Your task to perform on an android device: Open privacy settings Image 0: 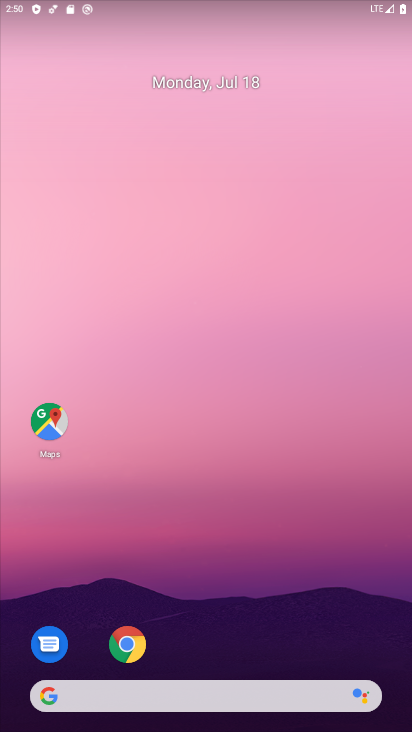
Step 0: drag from (187, 691) to (227, 235)
Your task to perform on an android device: Open privacy settings Image 1: 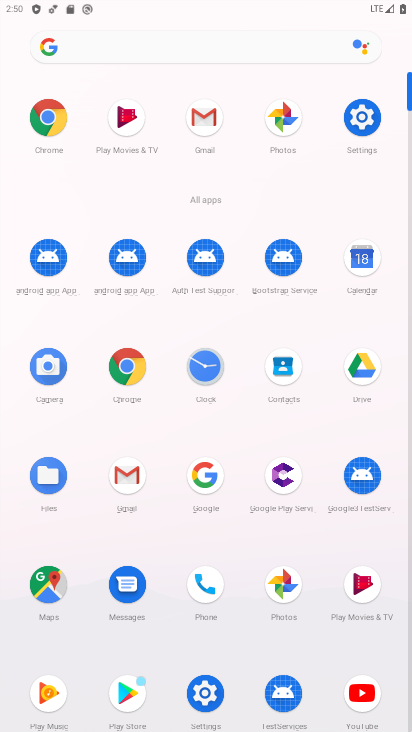
Step 1: click (373, 96)
Your task to perform on an android device: Open privacy settings Image 2: 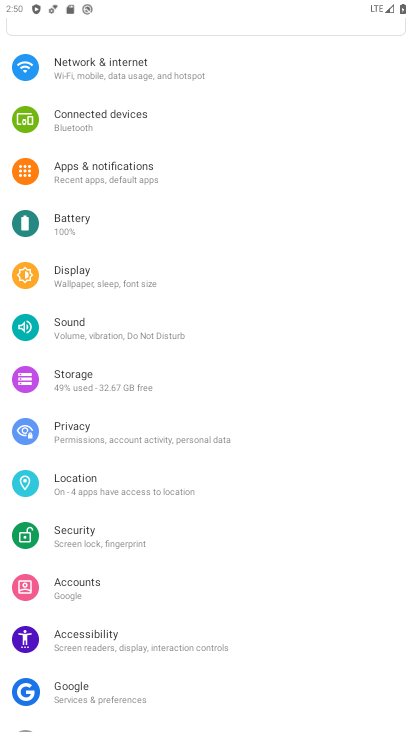
Step 2: click (95, 431)
Your task to perform on an android device: Open privacy settings Image 3: 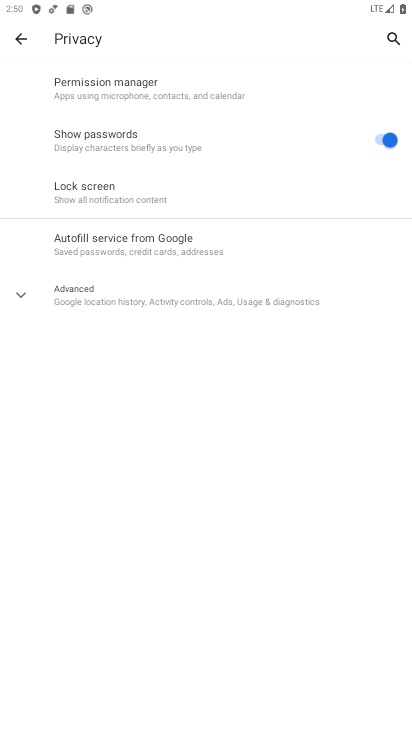
Step 3: task complete